Your task to perform on an android device: refresh tabs in the chrome app Image 0: 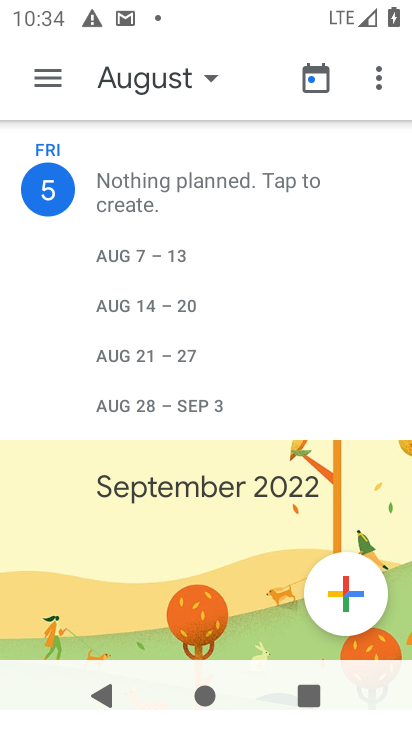
Step 0: press back button
Your task to perform on an android device: refresh tabs in the chrome app Image 1: 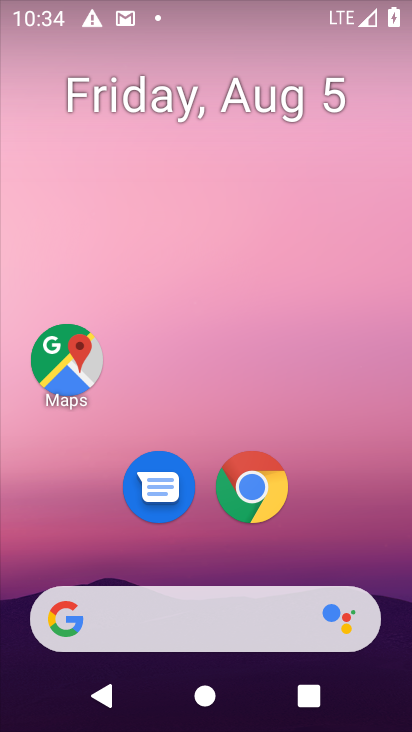
Step 1: click (264, 479)
Your task to perform on an android device: refresh tabs in the chrome app Image 2: 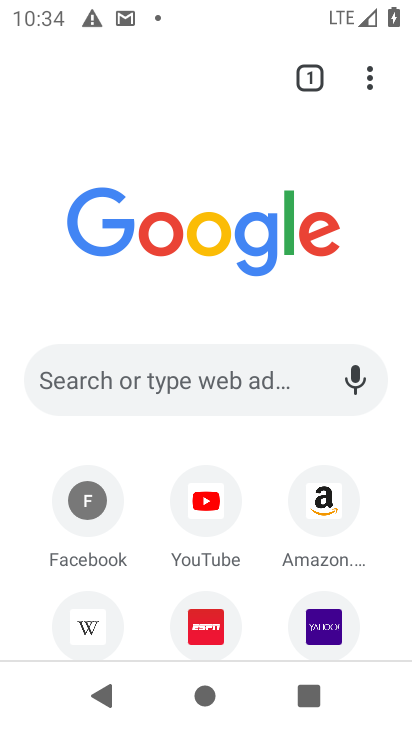
Step 2: click (368, 77)
Your task to perform on an android device: refresh tabs in the chrome app Image 3: 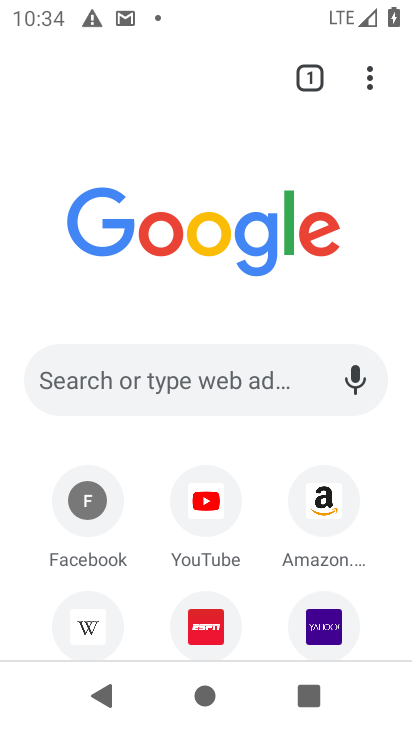
Step 3: task complete